Your task to perform on an android device: Open display settings Image 0: 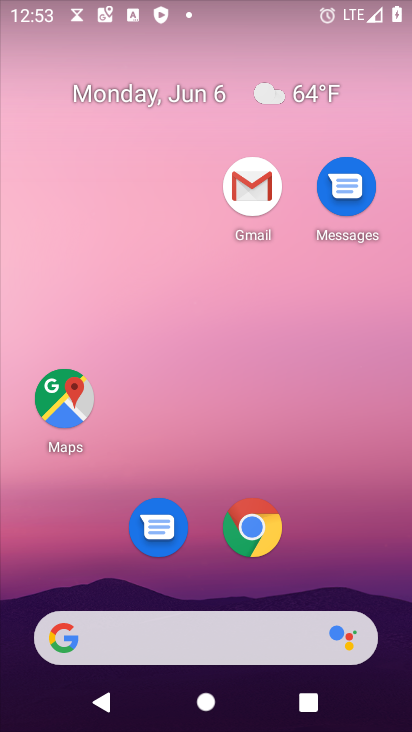
Step 0: drag from (277, 565) to (248, 119)
Your task to perform on an android device: Open display settings Image 1: 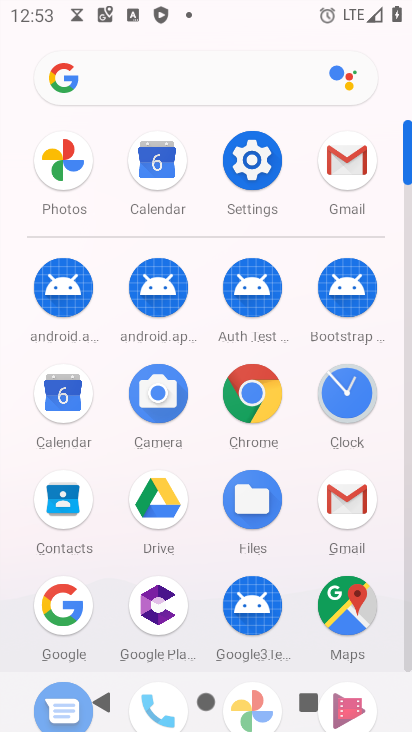
Step 1: click (252, 164)
Your task to perform on an android device: Open display settings Image 2: 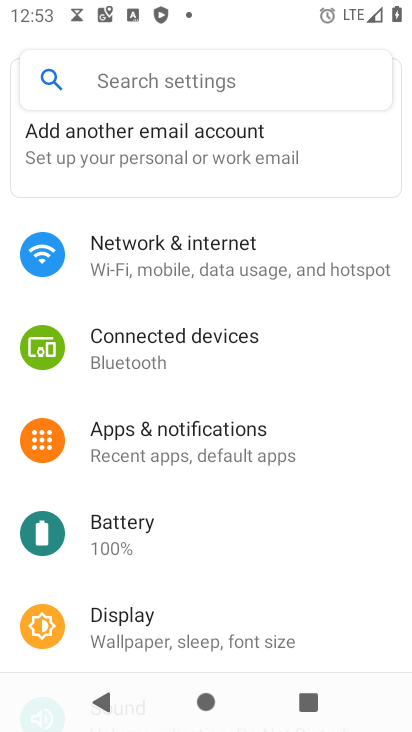
Step 2: click (300, 628)
Your task to perform on an android device: Open display settings Image 3: 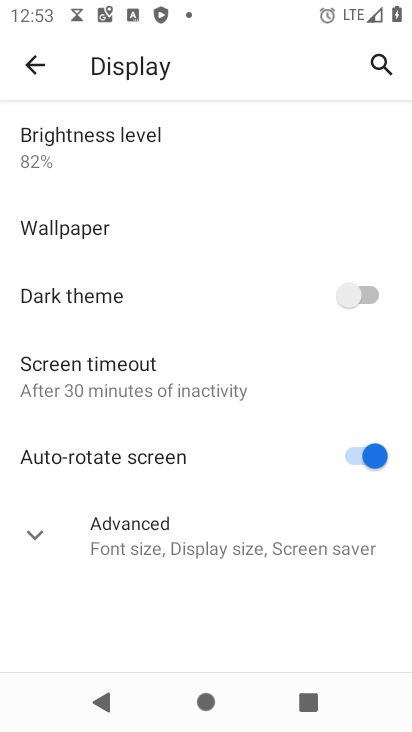
Step 3: task complete